Your task to perform on an android device: Go to Wikipedia Image 0: 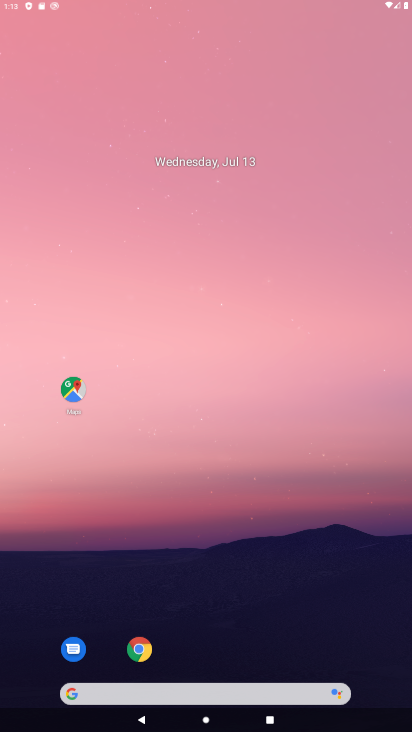
Step 0: drag from (204, 350) to (220, 155)
Your task to perform on an android device: Go to Wikipedia Image 1: 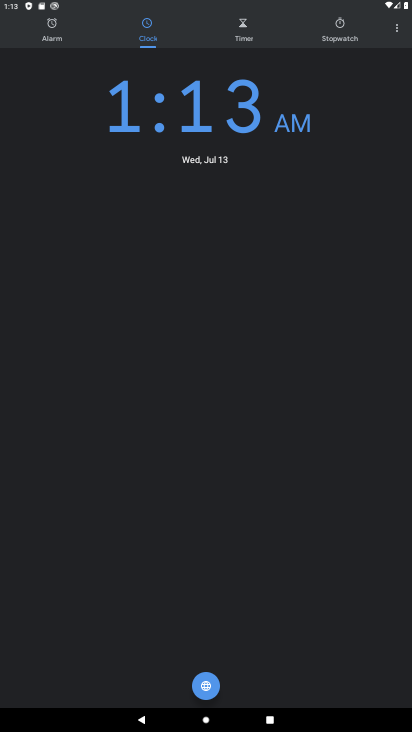
Step 1: press home button
Your task to perform on an android device: Go to Wikipedia Image 2: 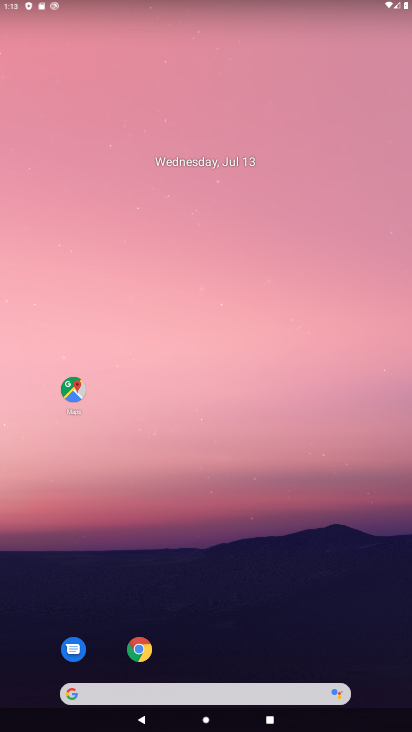
Step 2: drag from (243, 333) to (262, 173)
Your task to perform on an android device: Go to Wikipedia Image 3: 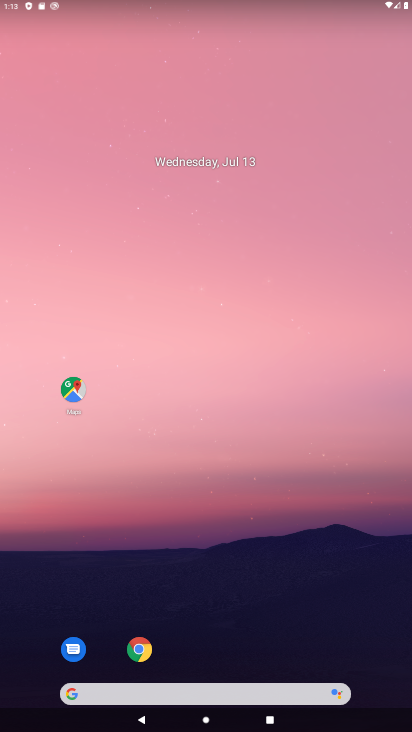
Step 3: drag from (185, 683) to (255, 99)
Your task to perform on an android device: Go to Wikipedia Image 4: 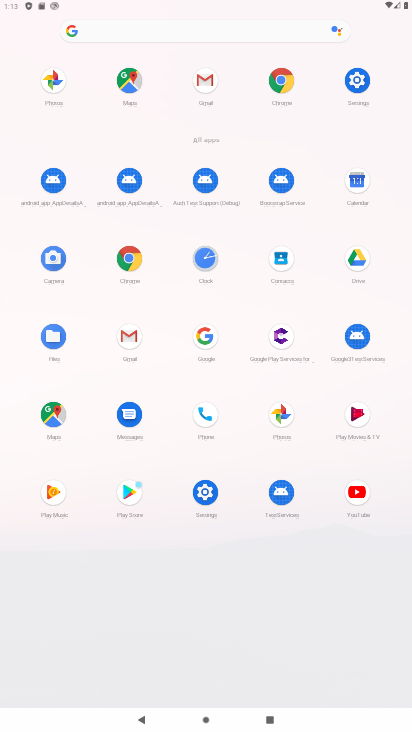
Step 4: click (123, 259)
Your task to perform on an android device: Go to Wikipedia Image 5: 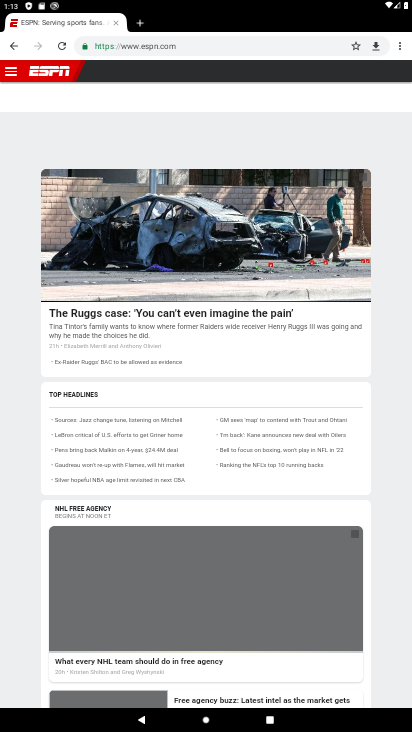
Step 5: click (402, 47)
Your task to perform on an android device: Go to Wikipedia Image 6: 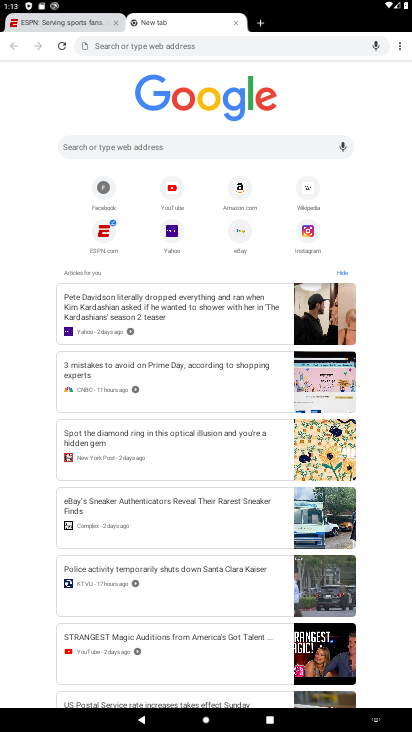
Step 6: click (315, 195)
Your task to perform on an android device: Go to Wikipedia Image 7: 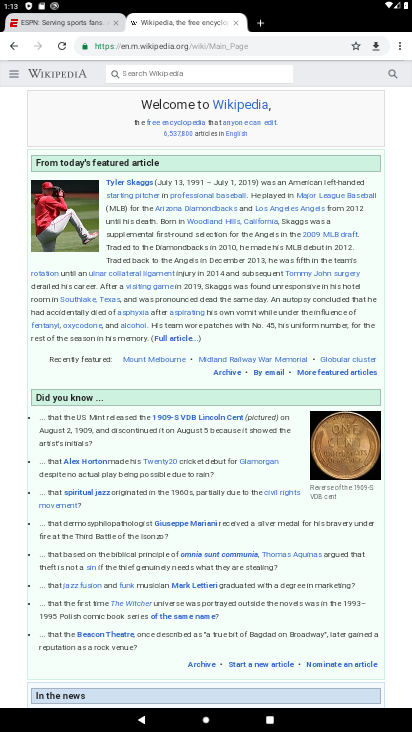
Step 7: task complete